Your task to perform on an android device: delete a single message in the gmail app Image 0: 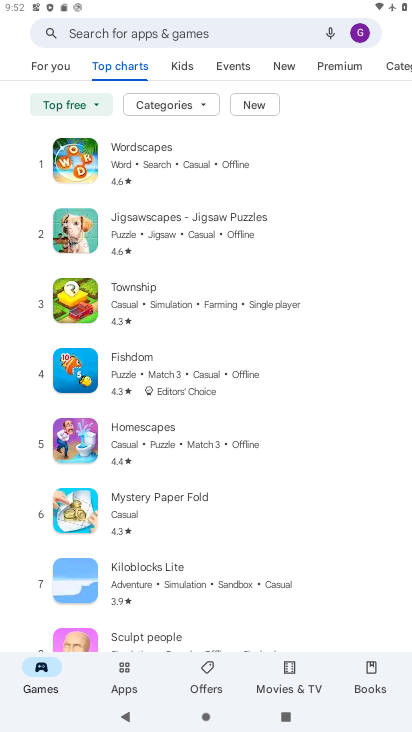
Step 0: press home button
Your task to perform on an android device: delete a single message in the gmail app Image 1: 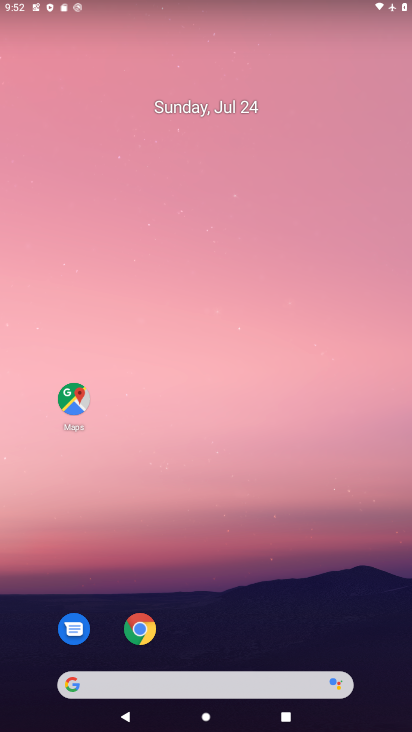
Step 1: drag from (277, 648) to (269, 222)
Your task to perform on an android device: delete a single message in the gmail app Image 2: 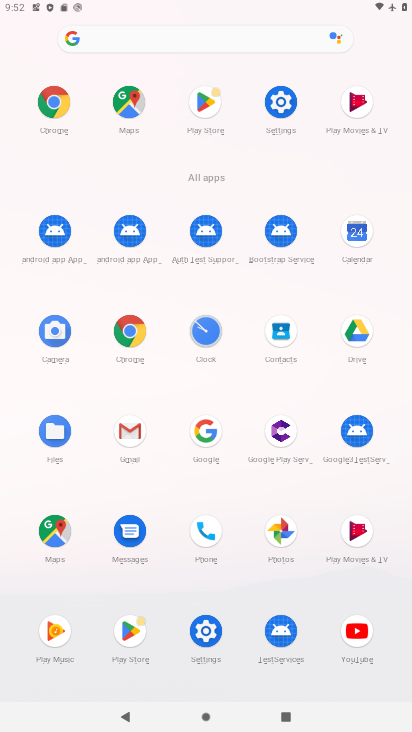
Step 2: click (132, 446)
Your task to perform on an android device: delete a single message in the gmail app Image 3: 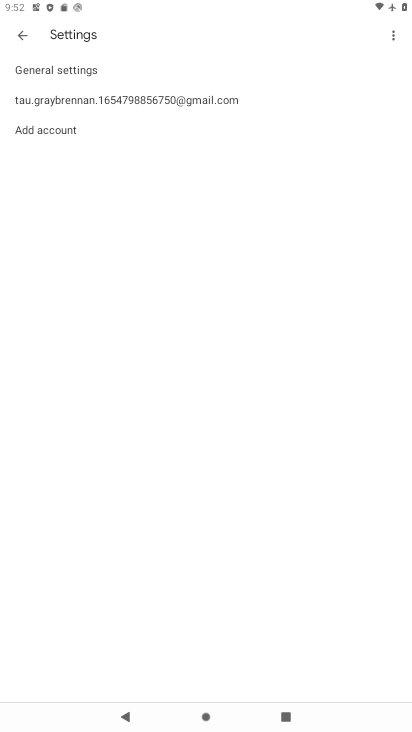
Step 3: click (30, 35)
Your task to perform on an android device: delete a single message in the gmail app Image 4: 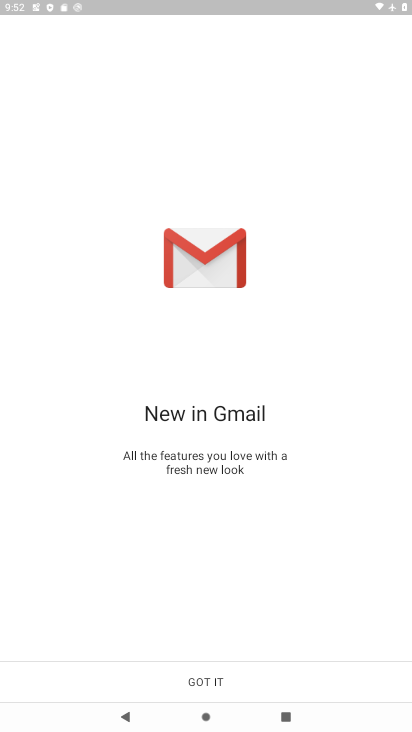
Step 4: click (194, 669)
Your task to perform on an android device: delete a single message in the gmail app Image 5: 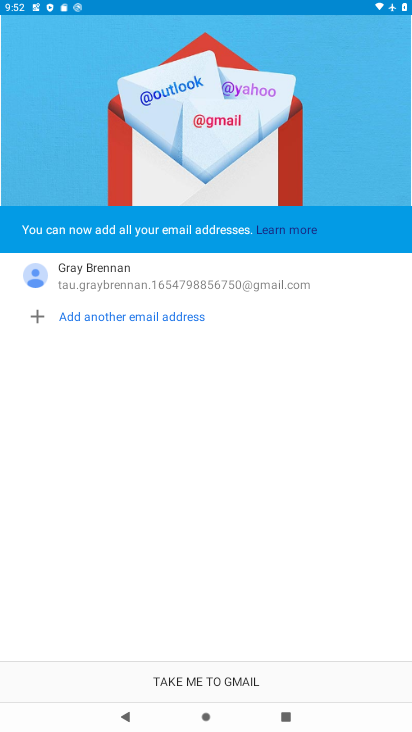
Step 5: click (190, 668)
Your task to perform on an android device: delete a single message in the gmail app Image 6: 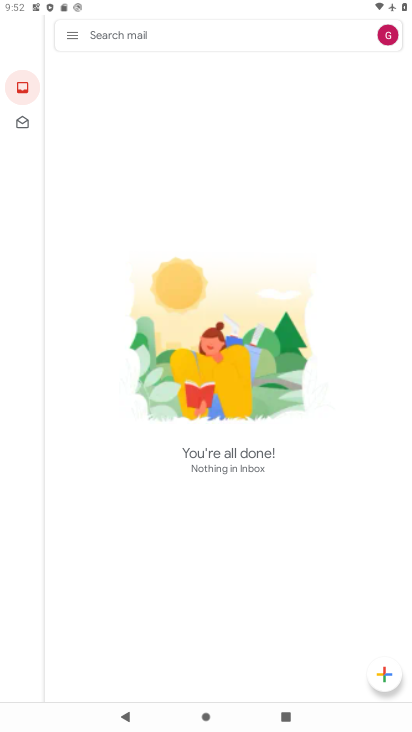
Step 6: click (74, 30)
Your task to perform on an android device: delete a single message in the gmail app Image 7: 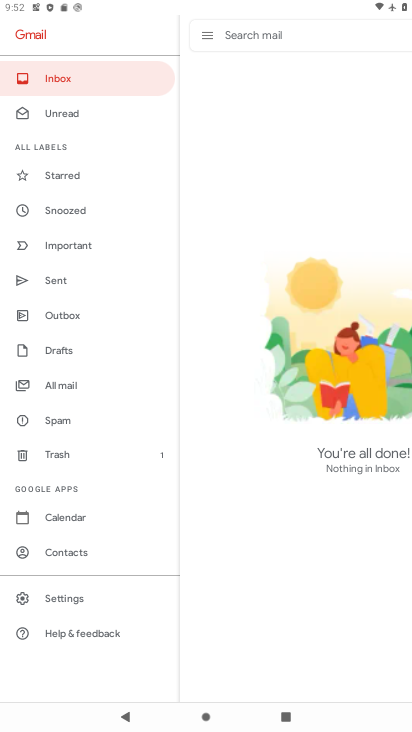
Step 7: click (98, 462)
Your task to perform on an android device: delete a single message in the gmail app Image 8: 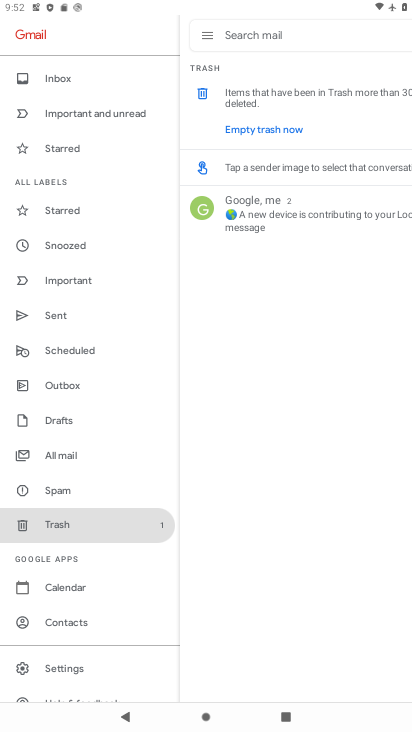
Step 8: click (204, 210)
Your task to perform on an android device: delete a single message in the gmail app Image 9: 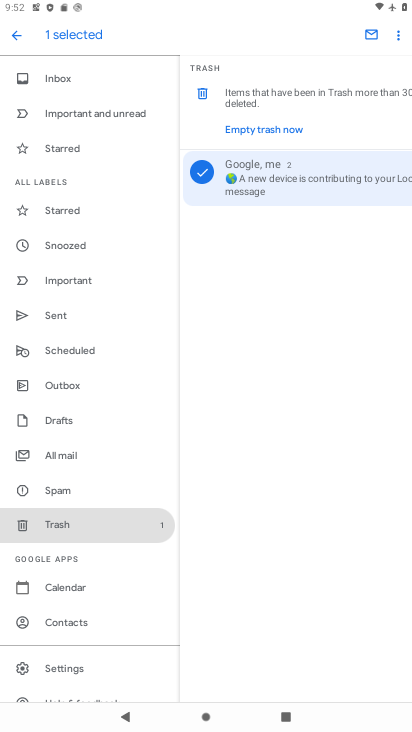
Step 9: click (203, 86)
Your task to perform on an android device: delete a single message in the gmail app Image 10: 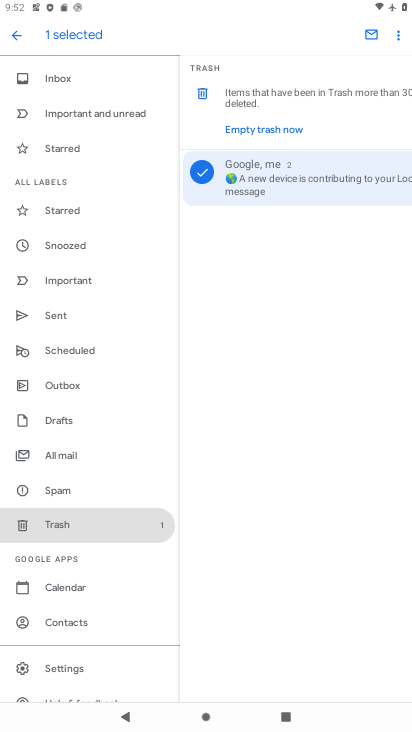
Step 10: task complete